Your task to perform on an android device: Show me popular videos on Youtube Image 0: 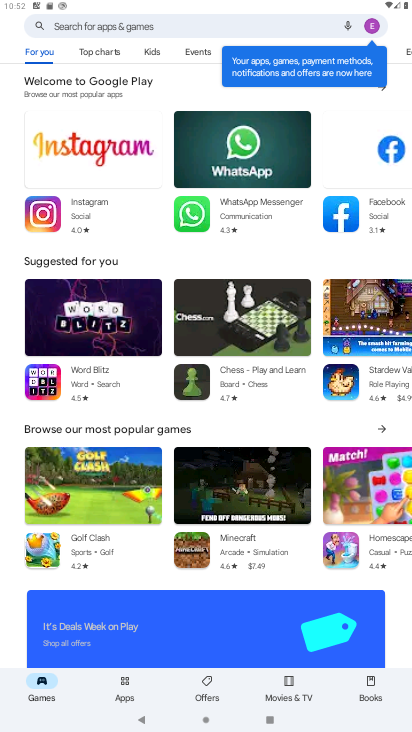
Step 0: press home button
Your task to perform on an android device: Show me popular videos on Youtube Image 1: 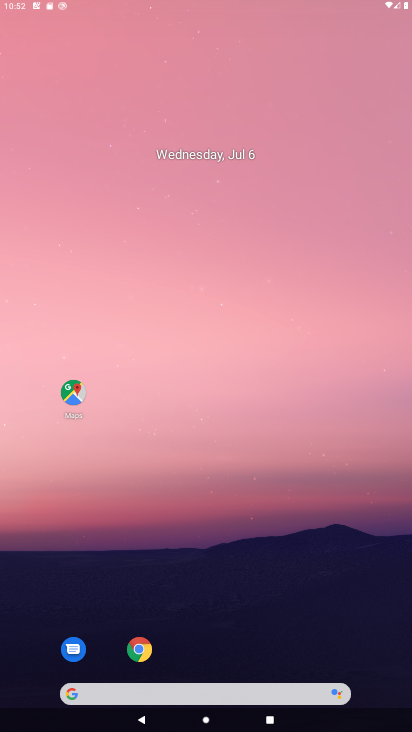
Step 1: drag from (265, 689) to (170, 11)
Your task to perform on an android device: Show me popular videos on Youtube Image 2: 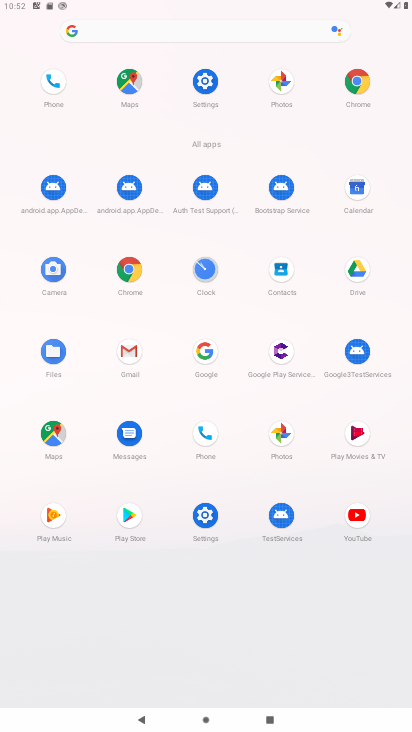
Step 2: click (356, 520)
Your task to perform on an android device: Show me popular videos on Youtube Image 3: 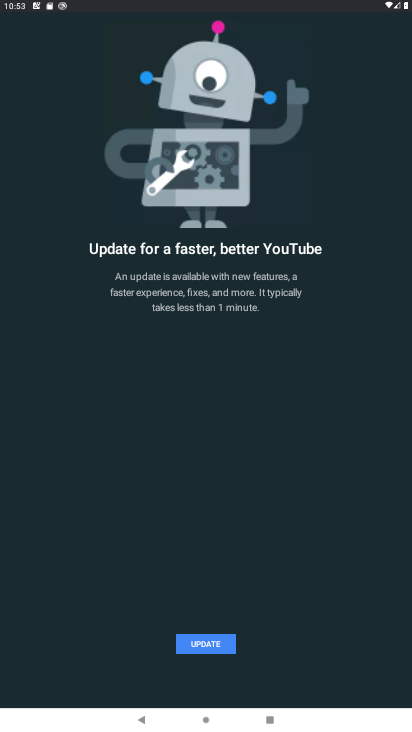
Step 3: click (225, 643)
Your task to perform on an android device: Show me popular videos on Youtube Image 4: 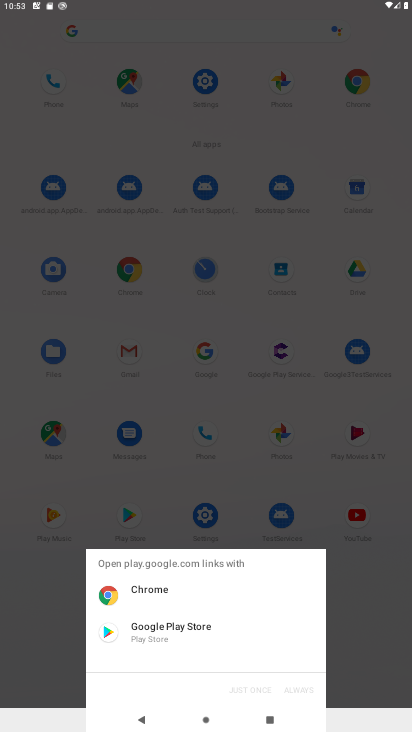
Step 4: click (155, 628)
Your task to perform on an android device: Show me popular videos on Youtube Image 5: 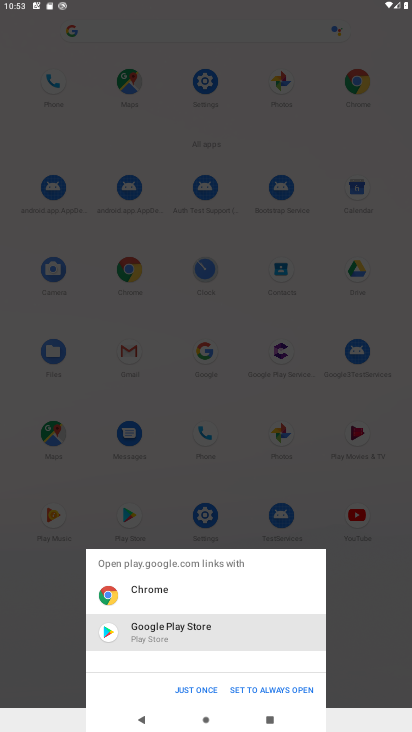
Step 5: click (203, 691)
Your task to perform on an android device: Show me popular videos on Youtube Image 6: 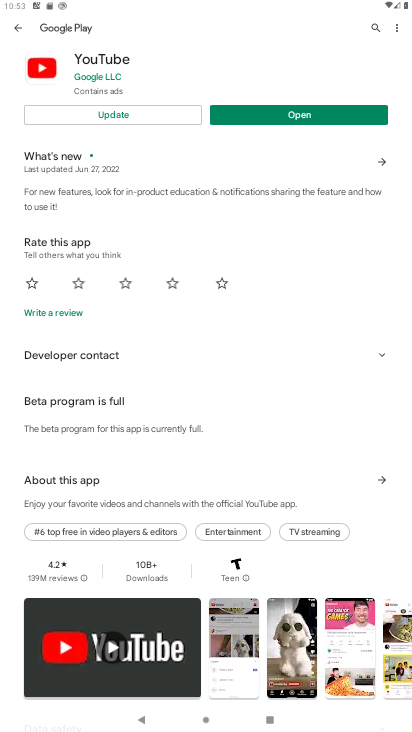
Step 6: click (128, 116)
Your task to perform on an android device: Show me popular videos on Youtube Image 7: 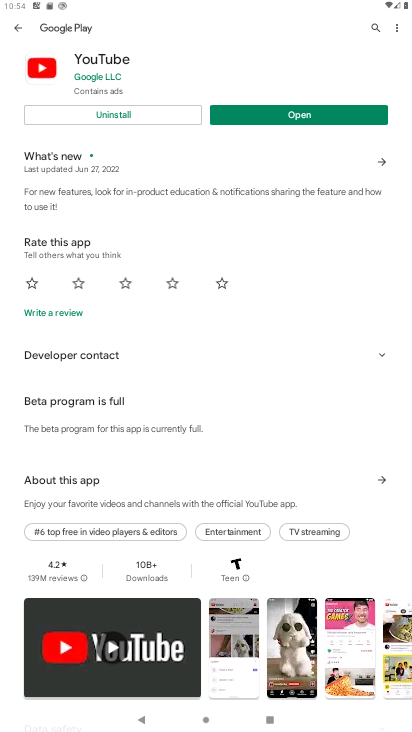
Step 7: click (283, 111)
Your task to perform on an android device: Show me popular videos on Youtube Image 8: 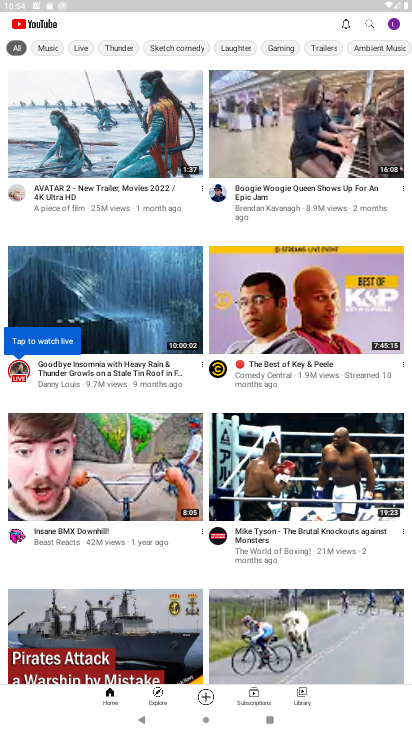
Step 8: task complete